Your task to perform on an android device: set default search engine in the chrome app Image 0: 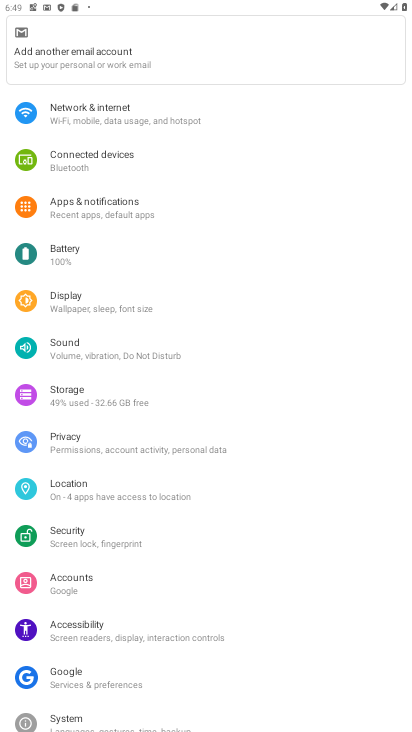
Step 0: press home button
Your task to perform on an android device: set default search engine in the chrome app Image 1: 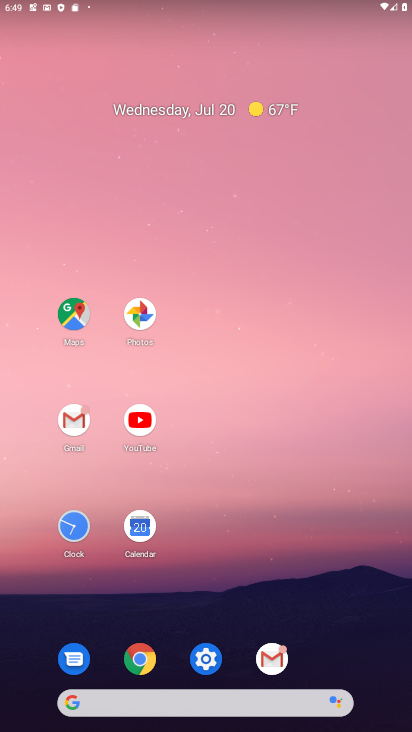
Step 1: click (140, 659)
Your task to perform on an android device: set default search engine in the chrome app Image 2: 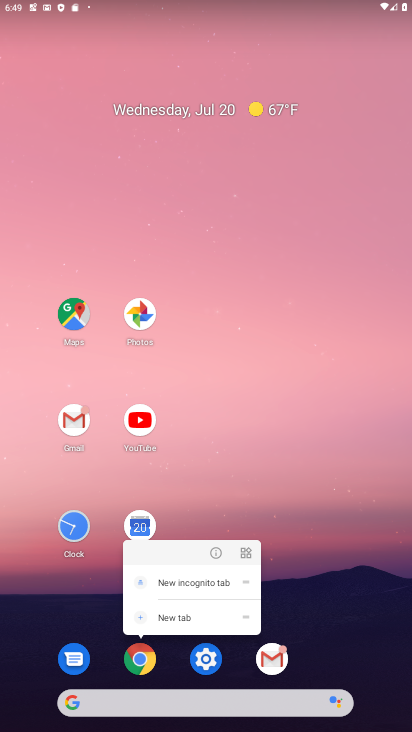
Step 2: click (140, 659)
Your task to perform on an android device: set default search engine in the chrome app Image 3: 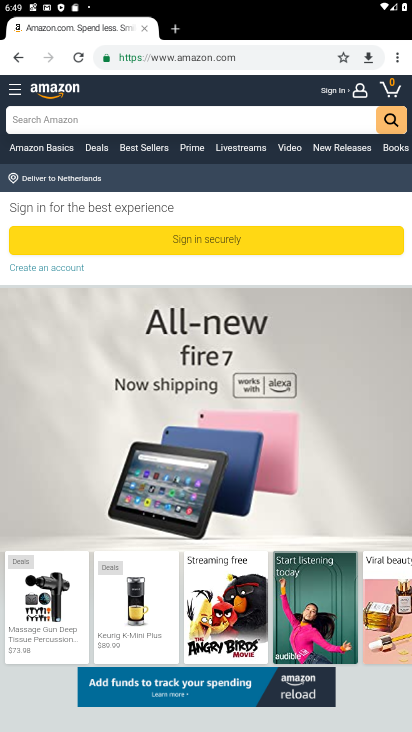
Step 3: click (397, 59)
Your task to perform on an android device: set default search engine in the chrome app Image 4: 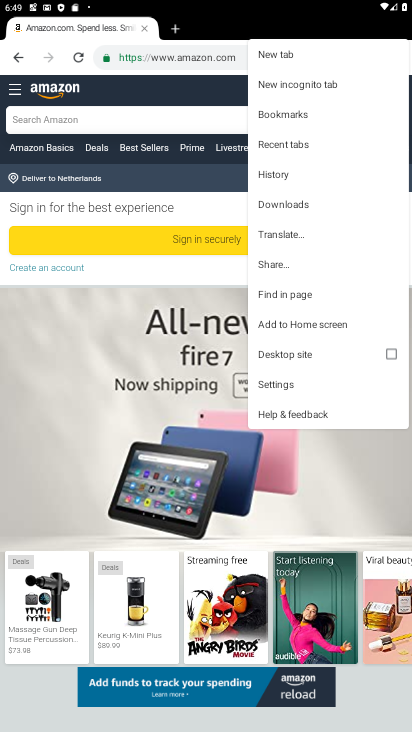
Step 4: click (262, 376)
Your task to perform on an android device: set default search engine in the chrome app Image 5: 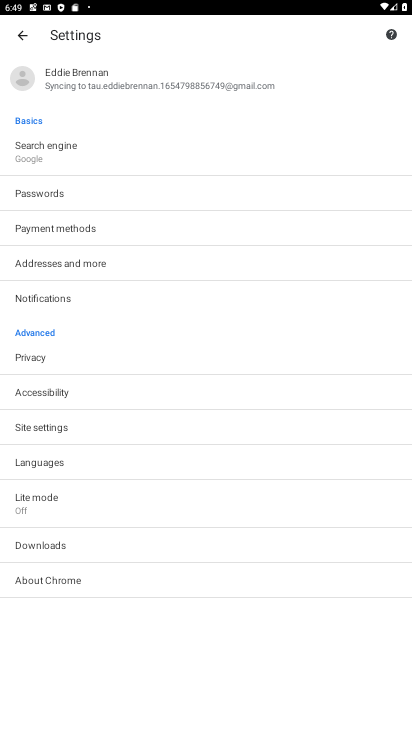
Step 5: click (46, 145)
Your task to perform on an android device: set default search engine in the chrome app Image 6: 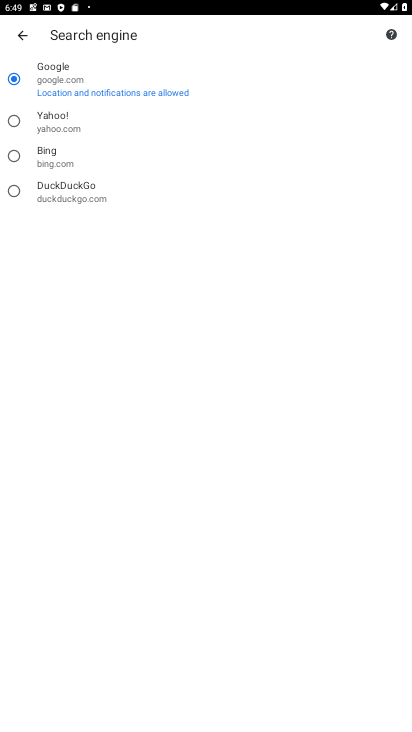
Step 6: click (13, 120)
Your task to perform on an android device: set default search engine in the chrome app Image 7: 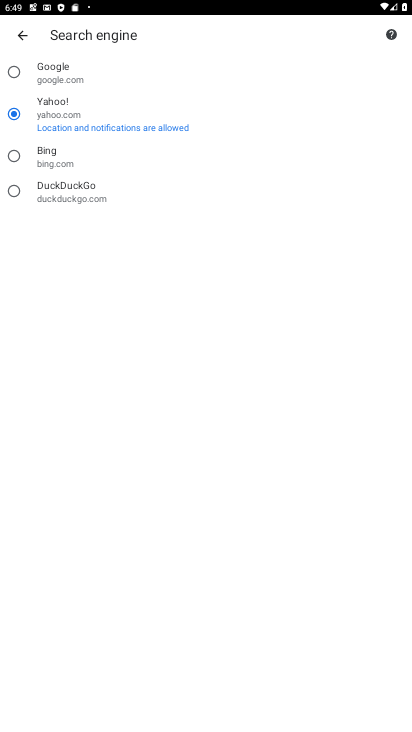
Step 7: task complete